Your task to perform on an android device: toggle notification dots Image 0: 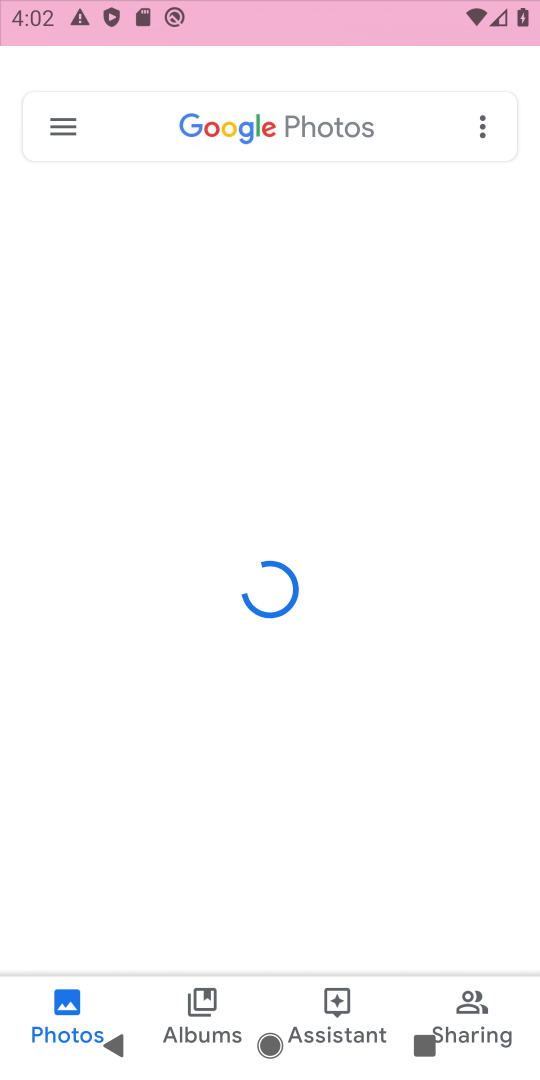
Step 0: press home button
Your task to perform on an android device: toggle notification dots Image 1: 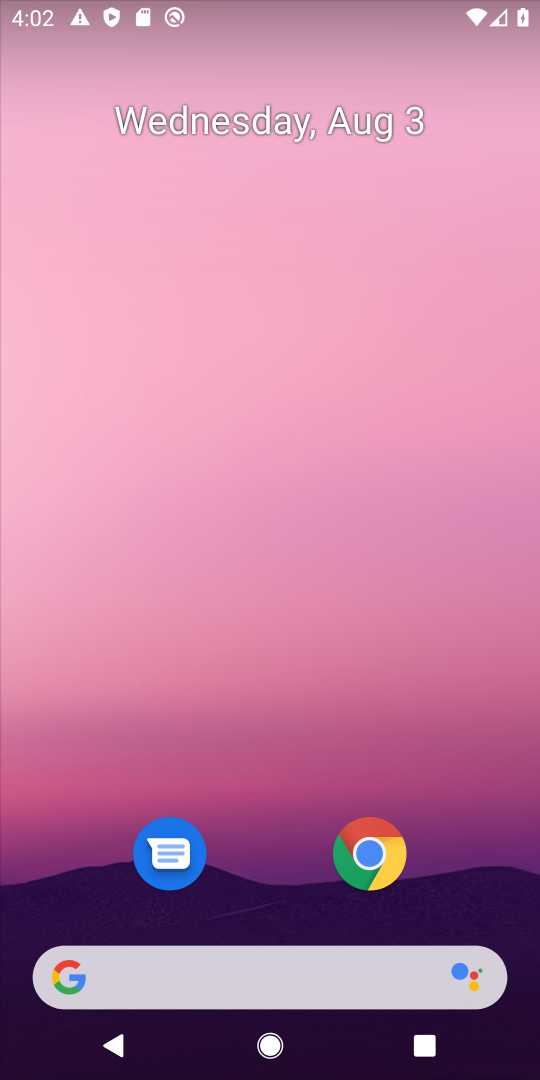
Step 1: drag from (277, 705) to (305, 11)
Your task to perform on an android device: toggle notification dots Image 2: 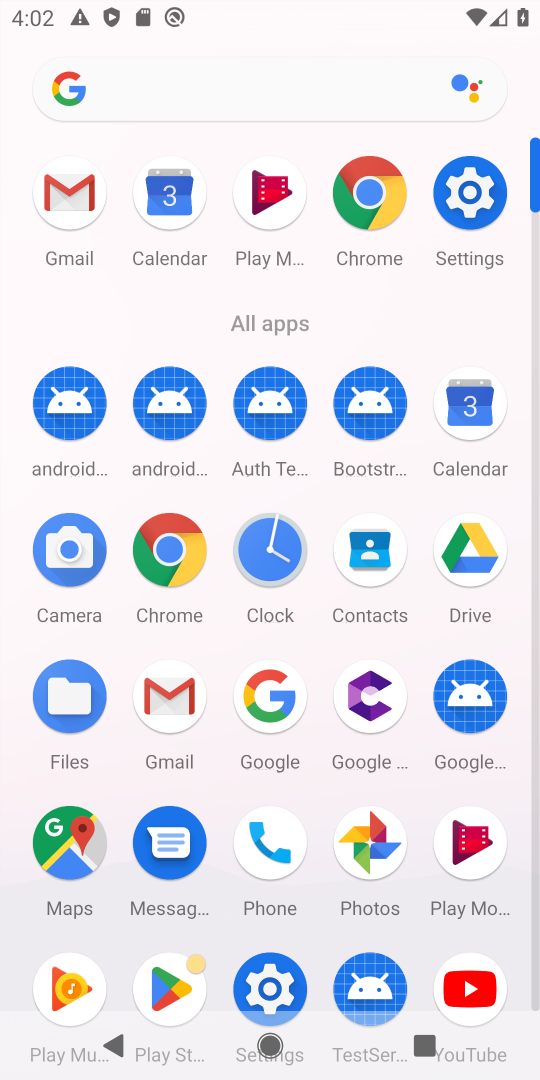
Step 2: click (473, 197)
Your task to perform on an android device: toggle notification dots Image 3: 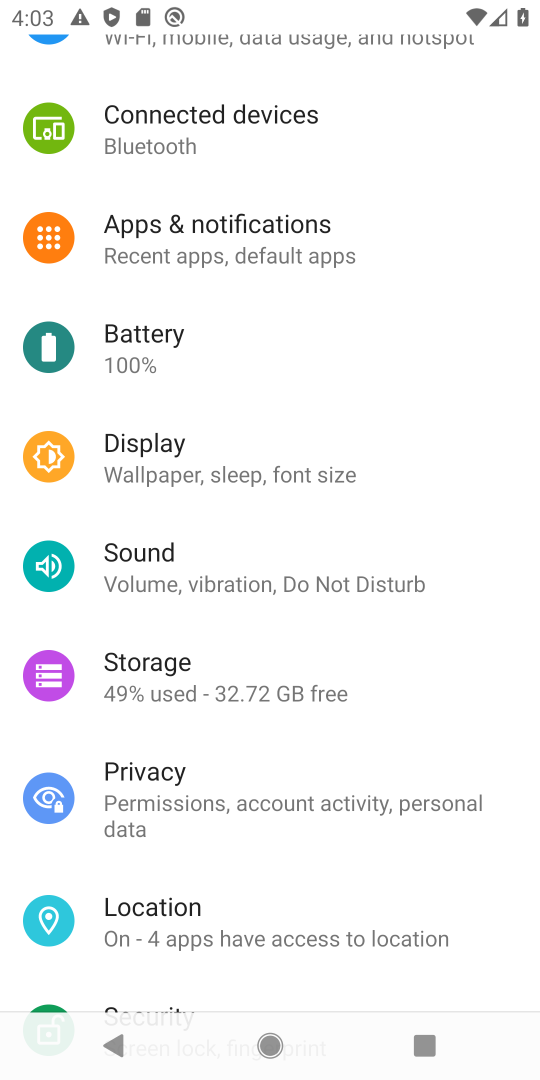
Step 3: click (239, 228)
Your task to perform on an android device: toggle notification dots Image 4: 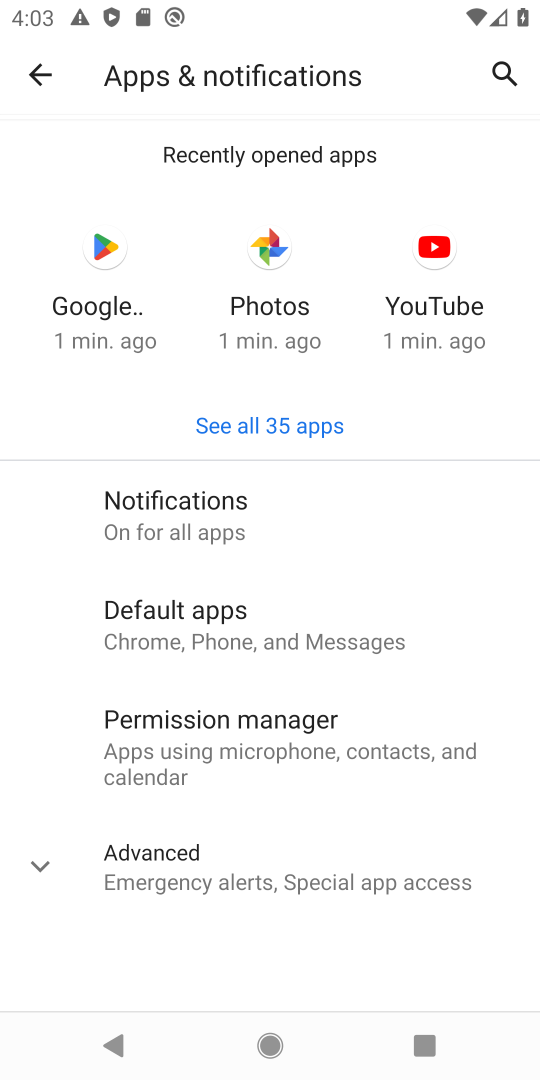
Step 4: click (172, 511)
Your task to perform on an android device: toggle notification dots Image 5: 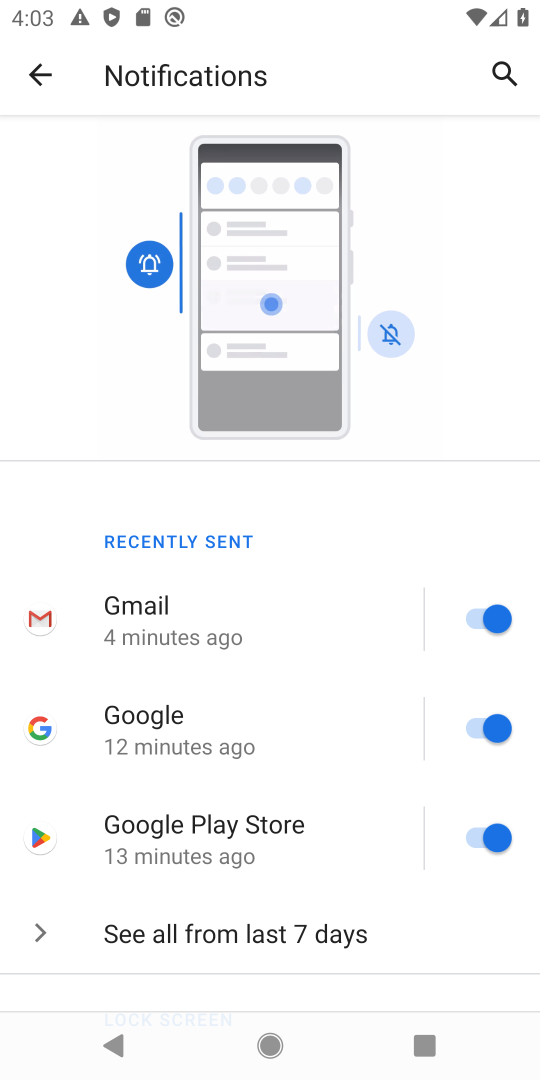
Step 5: drag from (299, 953) to (326, 385)
Your task to perform on an android device: toggle notification dots Image 6: 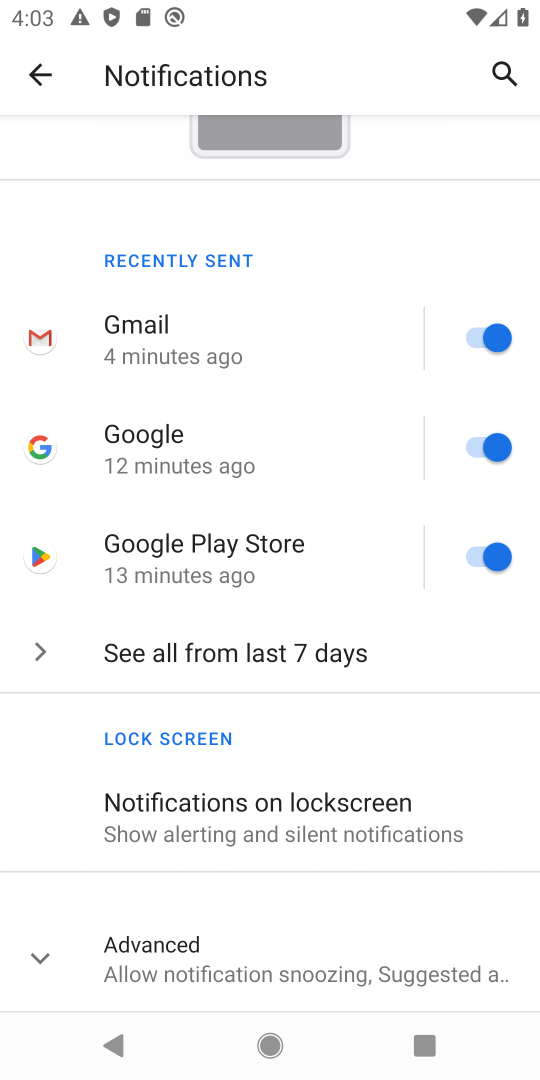
Step 6: click (277, 963)
Your task to perform on an android device: toggle notification dots Image 7: 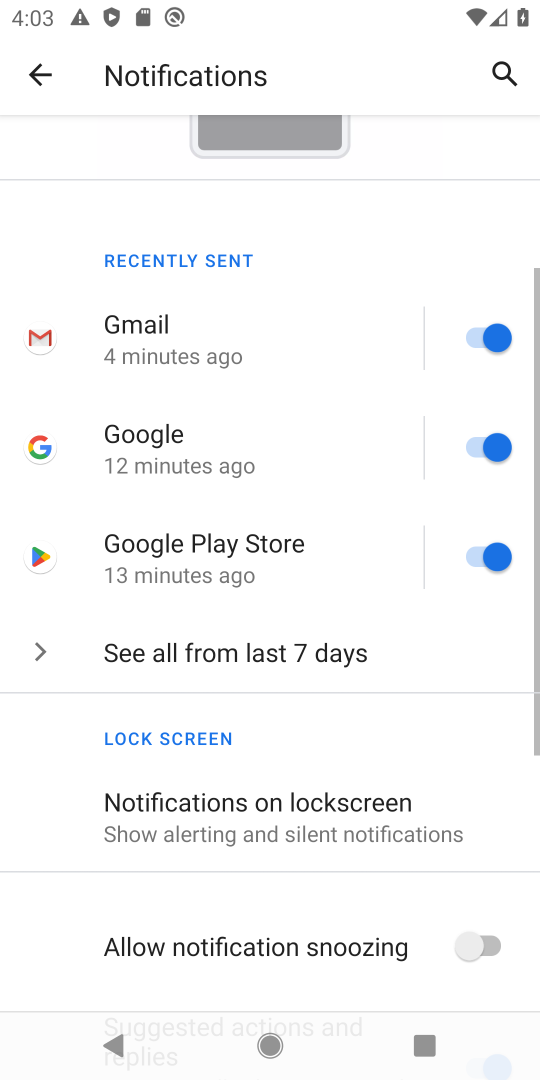
Step 7: drag from (291, 935) to (322, 343)
Your task to perform on an android device: toggle notification dots Image 8: 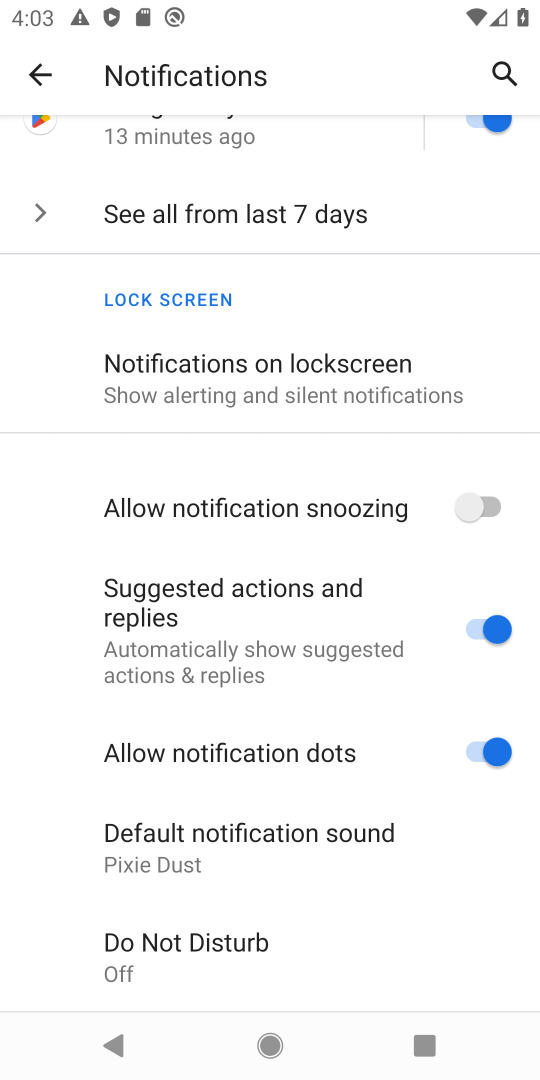
Step 8: click (475, 746)
Your task to perform on an android device: toggle notification dots Image 9: 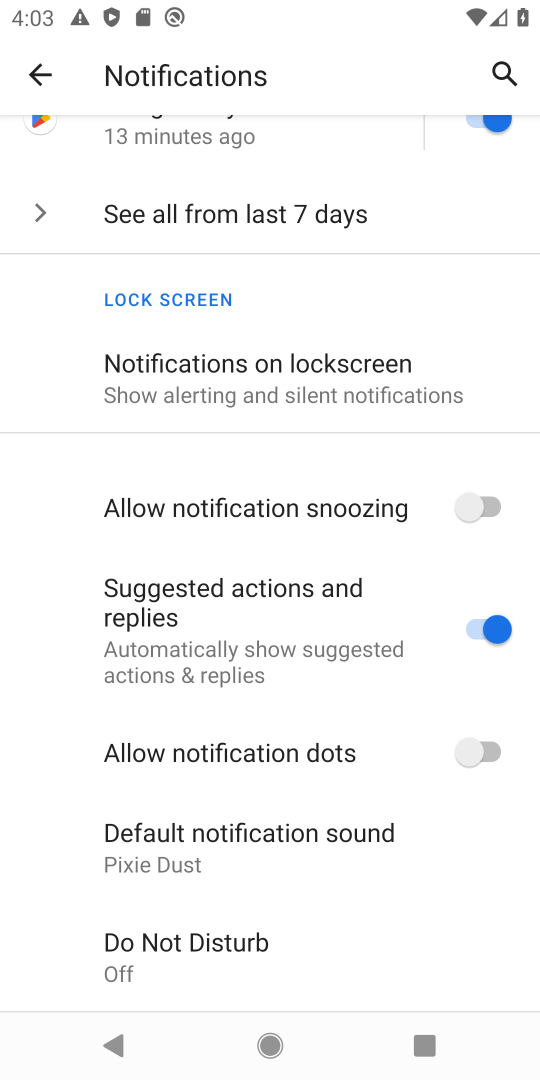
Step 9: task complete